Your task to perform on an android device: toggle airplane mode Image 0: 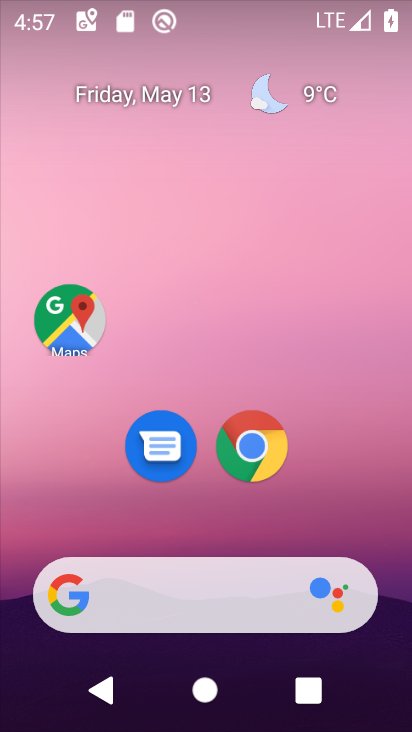
Step 0: drag from (215, 518) to (229, 16)
Your task to perform on an android device: toggle airplane mode Image 1: 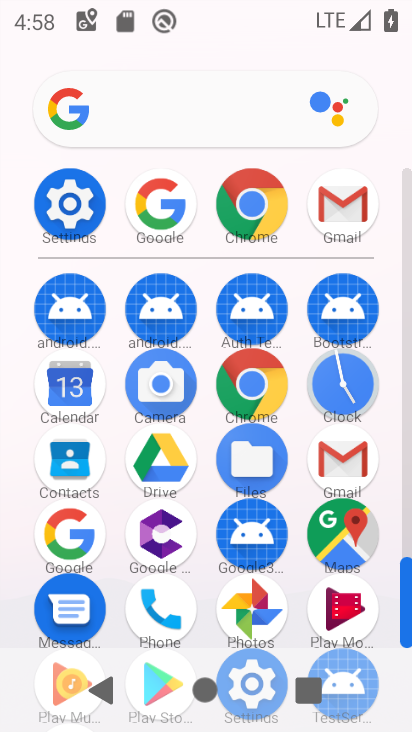
Step 1: click (77, 185)
Your task to perform on an android device: toggle airplane mode Image 2: 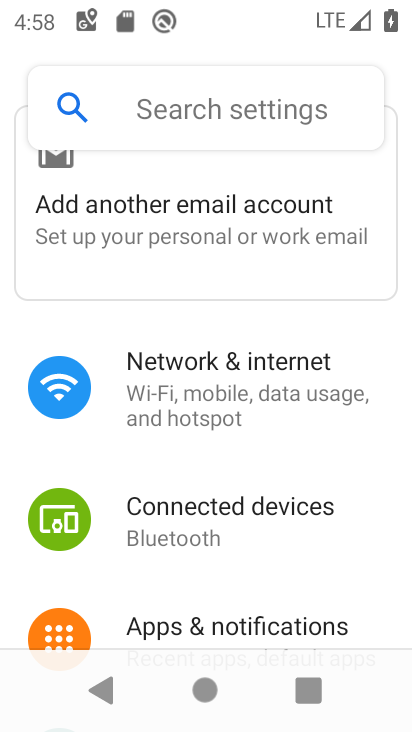
Step 2: click (173, 408)
Your task to perform on an android device: toggle airplane mode Image 3: 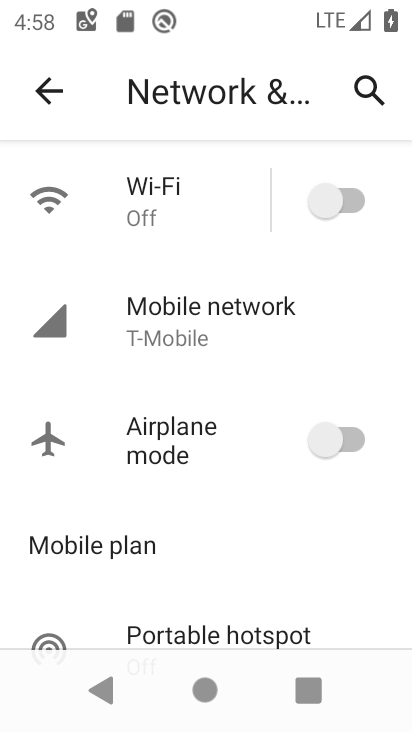
Step 3: click (336, 428)
Your task to perform on an android device: toggle airplane mode Image 4: 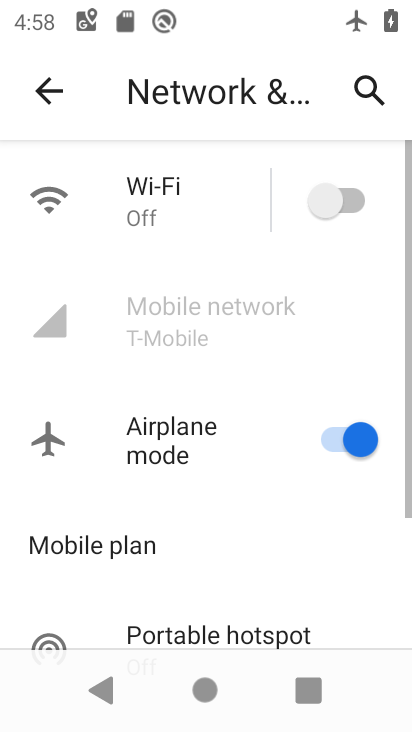
Step 4: task complete